Your task to perform on an android device: Is it going to rain tomorrow? Image 0: 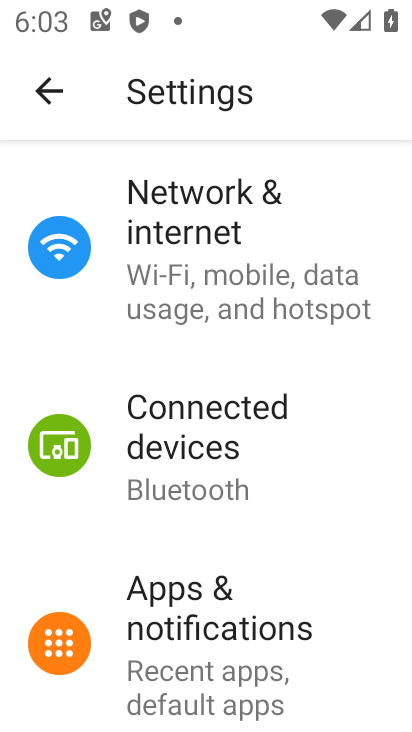
Step 0: press home button
Your task to perform on an android device: Is it going to rain tomorrow? Image 1: 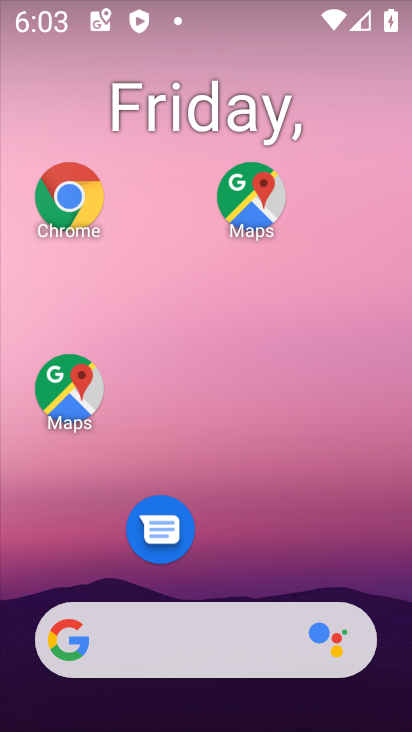
Step 1: drag from (270, 586) to (186, 78)
Your task to perform on an android device: Is it going to rain tomorrow? Image 2: 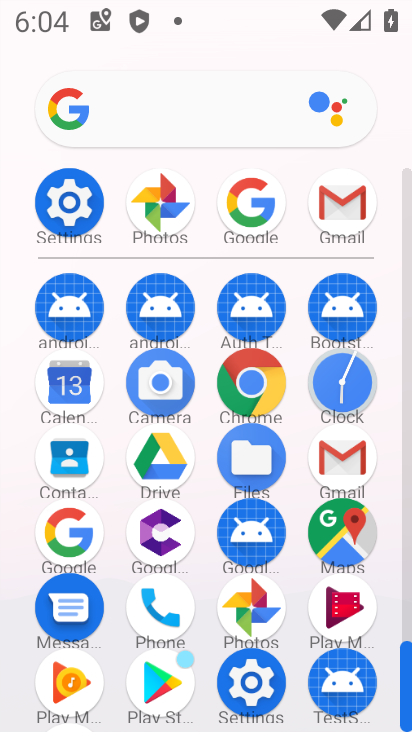
Step 2: click (260, 219)
Your task to perform on an android device: Is it going to rain tomorrow? Image 3: 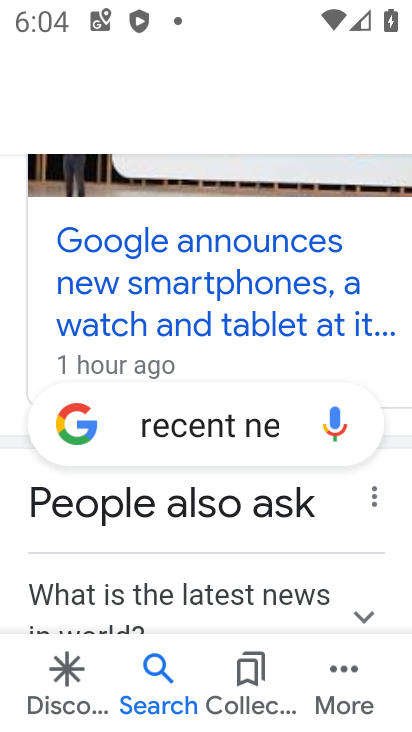
Step 3: click (153, 439)
Your task to perform on an android device: Is it going to rain tomorrow? Image 4: 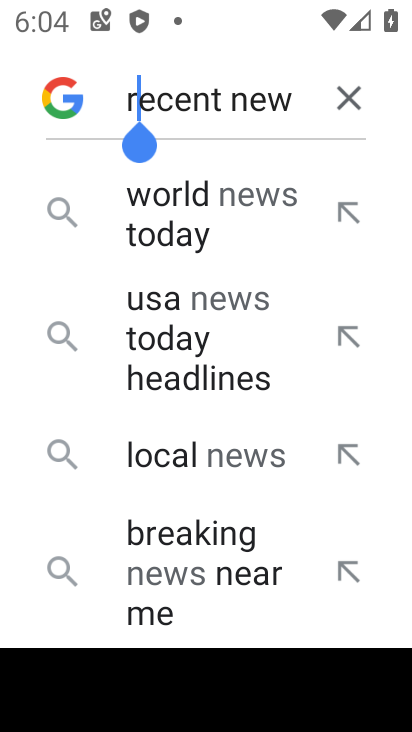
Step 4: click (342, 103)
Your task to perform on an android device: Is it going to rain tomorrow? Image 5: 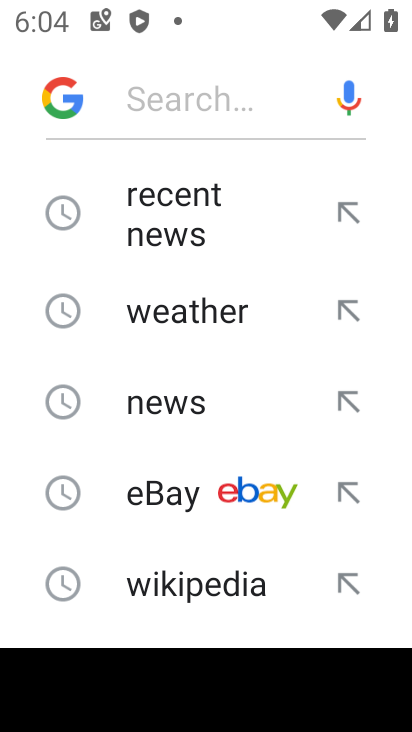
Step 5: click (174, 330)
Your task to perform on an android device: Is it going to rain tomorrow? Image 6: 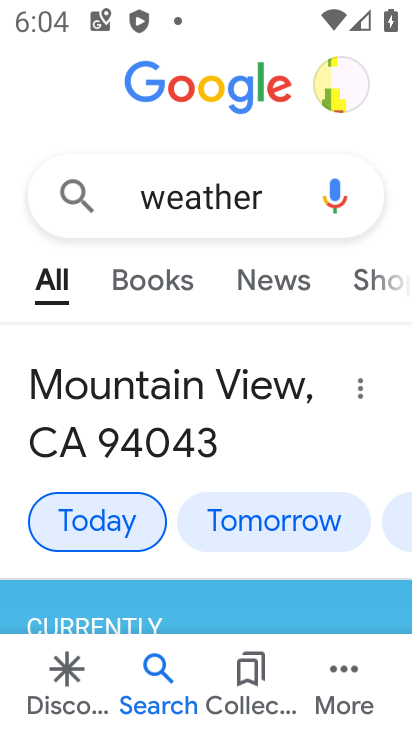
Step 6: click (277, 531)
Your task to perform on an android device: Is it going to rain tomorrow? Image 7: 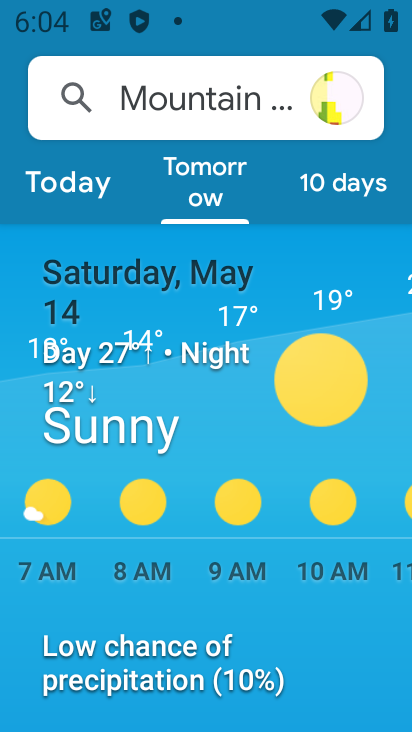
Step 7: task complete